Your task to perform on an android device: Go to Android settings Image 0: 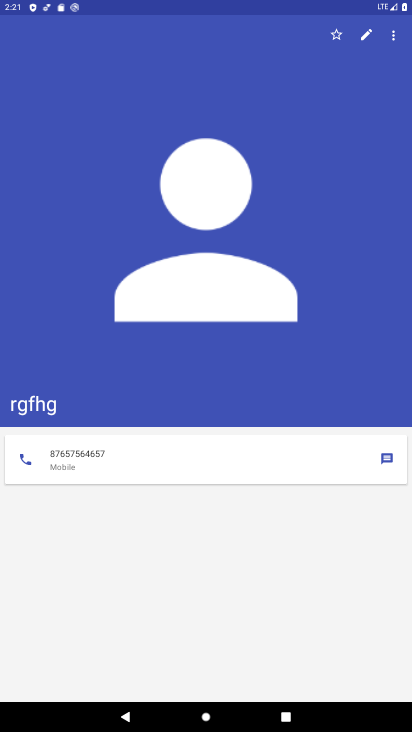
Step 0: press home button
Your task to perform on an android device: Go to Android settings Image 1: 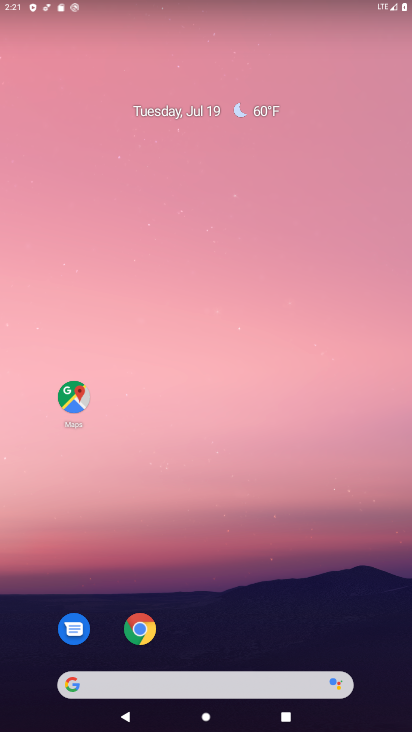
Step 1: drag from (200, 603) to (171, 140)
Your task to perform on an android device: Go to Android settings Image 2: 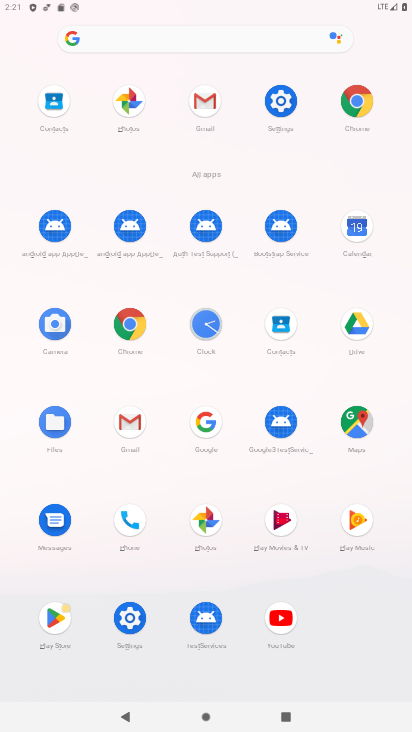
Step 2: click (261, 106)
Your task to perform on an android device: Go to Android settings Image 3: 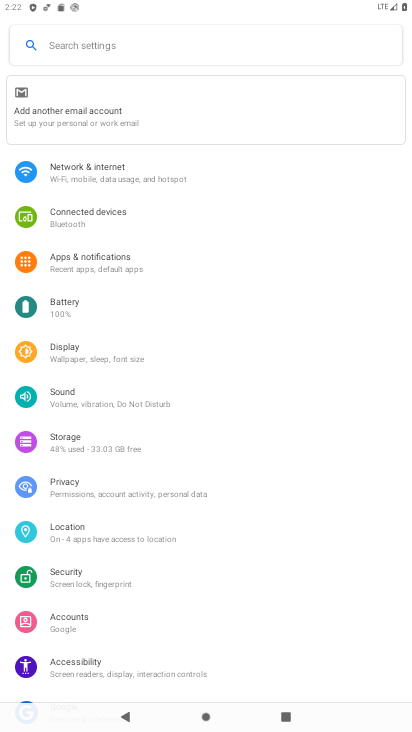
Step 3: task complete